Your task to perform on an android device: turn off smart reply in the gmail app Image 0: 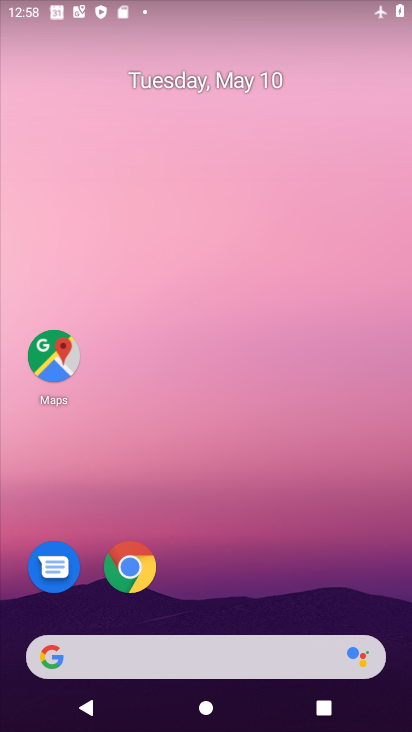
Step 0: drag from (389, 626) to (290, 81)
Your task to perform on an android device: turn off smart reply in the gmail app Image 1: 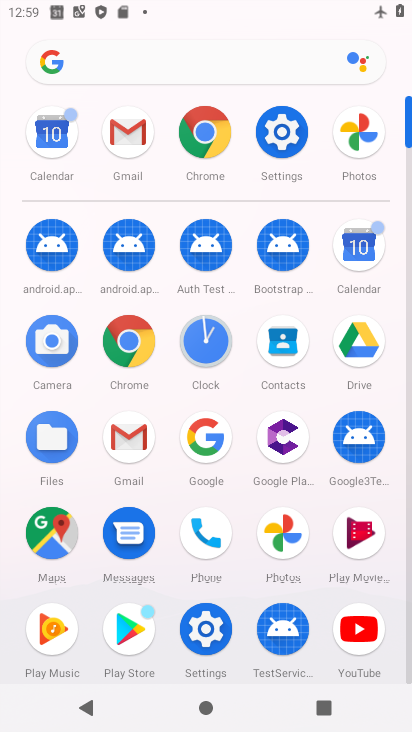
Step 1: click (132, 434)
Your task to perform on an android device: turn off smart reply in the gmail app Image 2: 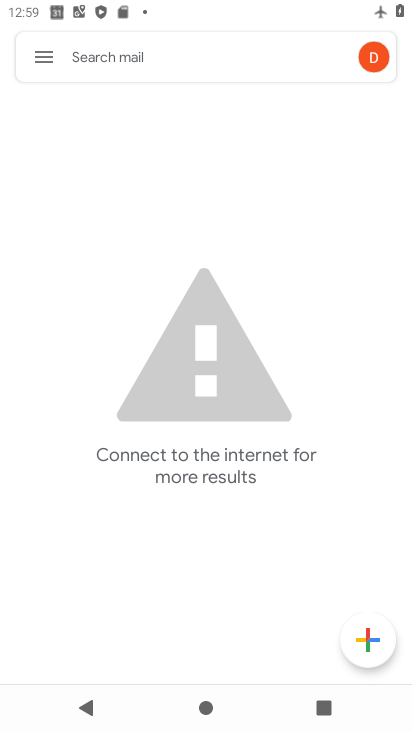
Step 2: click (37, 45)
Your task to perform on an android device: turn off smart reply in the gmail app Image 3: 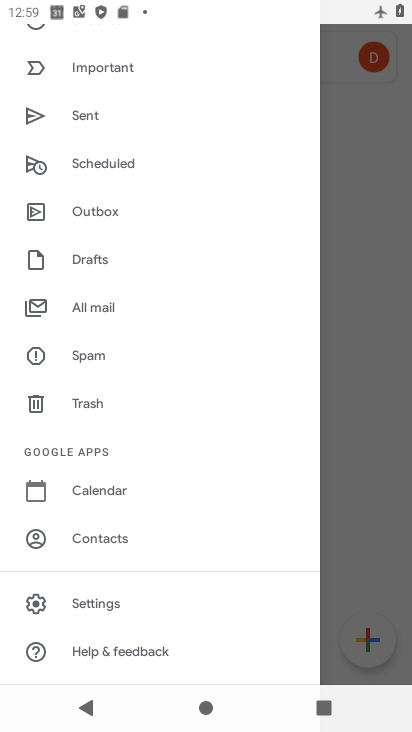
Step 3: click (103, 599)
Your task to perform on an android device: turn off smart reply in the gmail app Image 4: 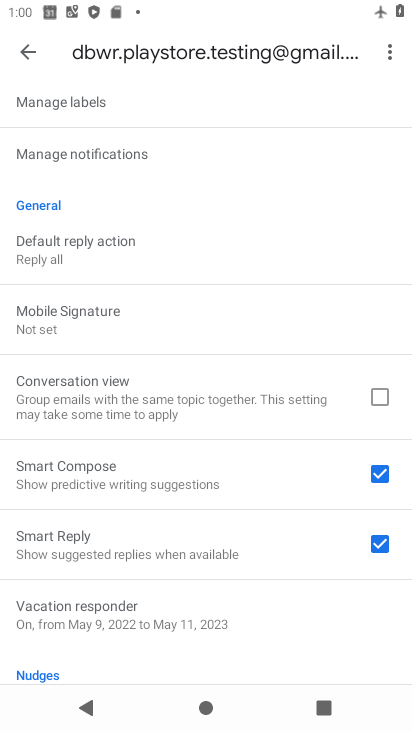
Step 4: click (224, 541)
Your task to perform on an android device: turn off smart reply in the gmail app Image 5: 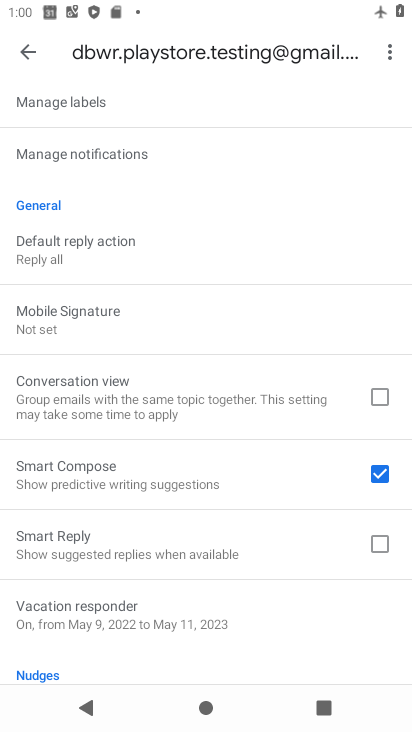
Step 5: task complete